Your task to perform on an android device: check out phone information Image 0: 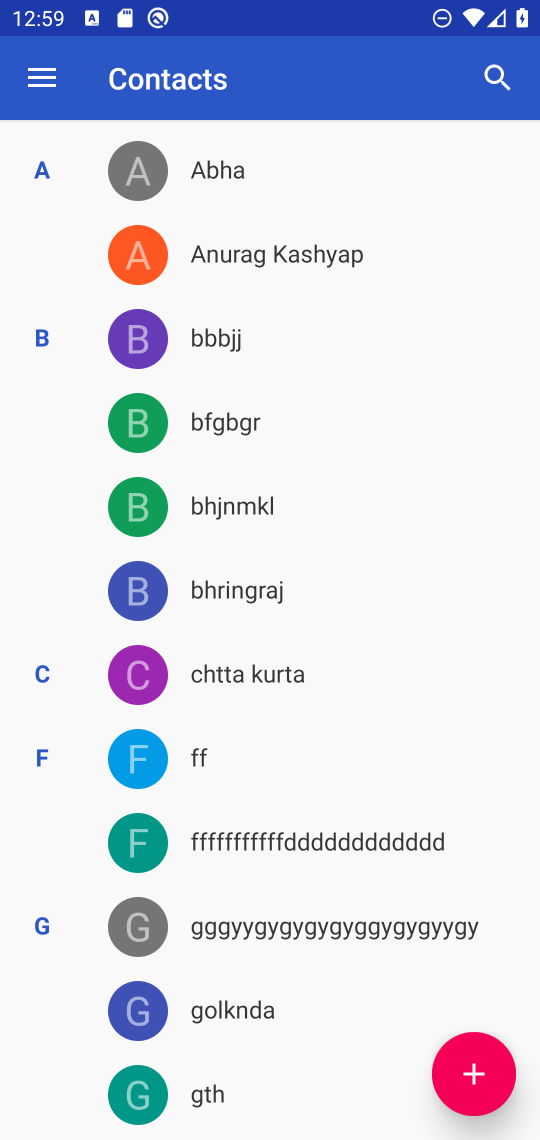
Step 0: press home button
Your task to perform on an android device: check out phone information Image 1: 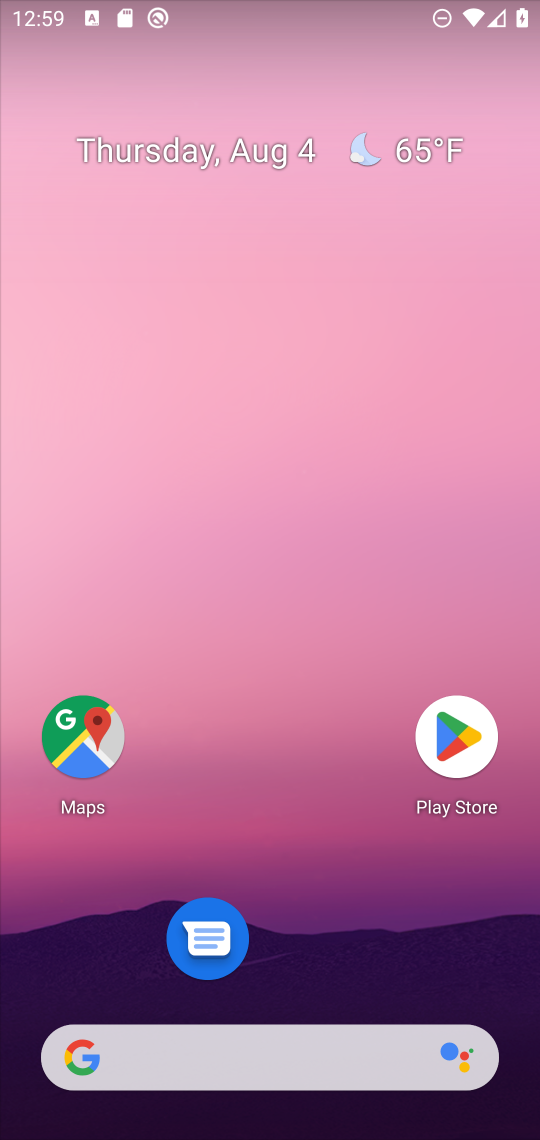
Step 1: drag from (309, 1109) to (363, 149)
Your task to perform on an android device: check out phone information Image 2: 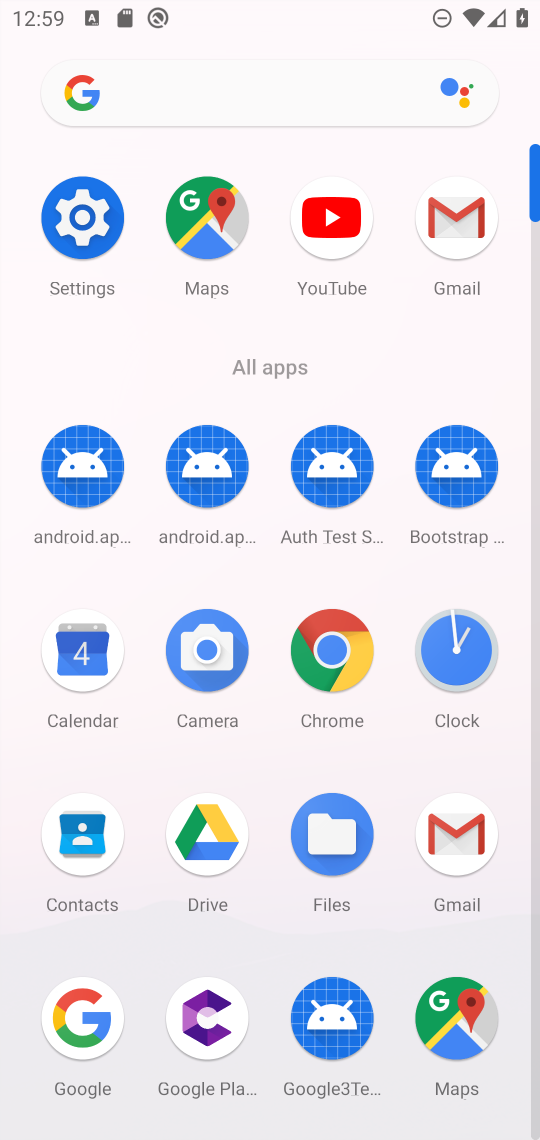
Step 2: click (110, 228)
Your task to perform on an android device: check out phone information Image 3: 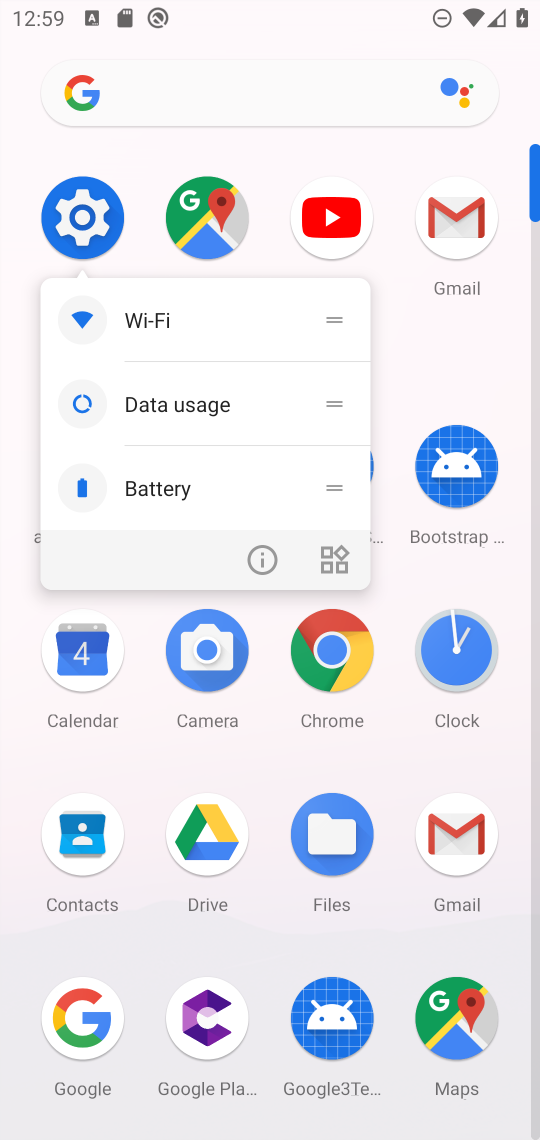
Step 3: click (110, 228)
Your task to perform on an android device: check out phone information Image 4: 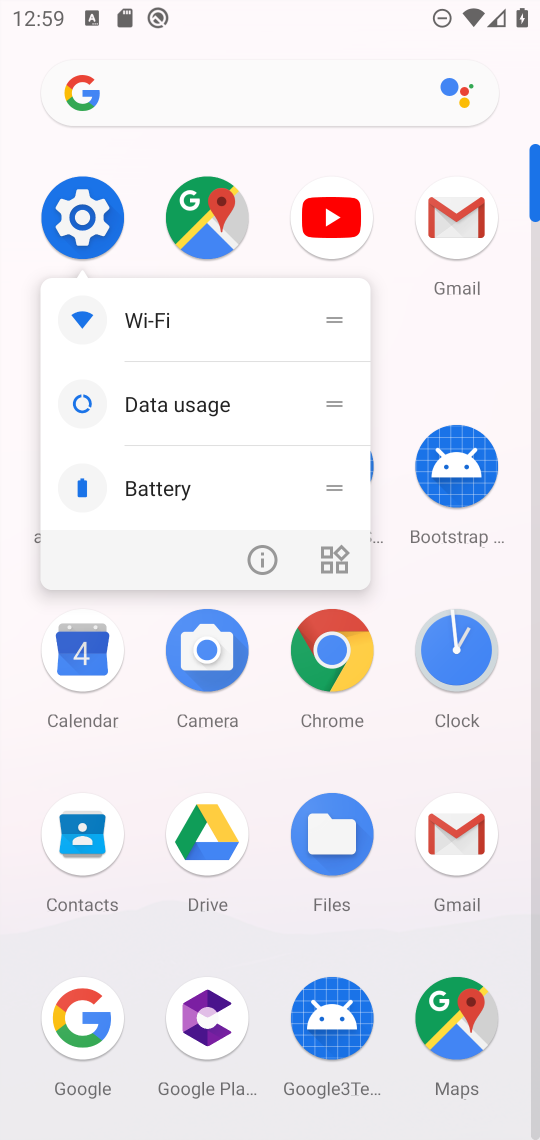
Step 4: click (88, 200)
Your task to perform on an android device: check out phone information Image 5: 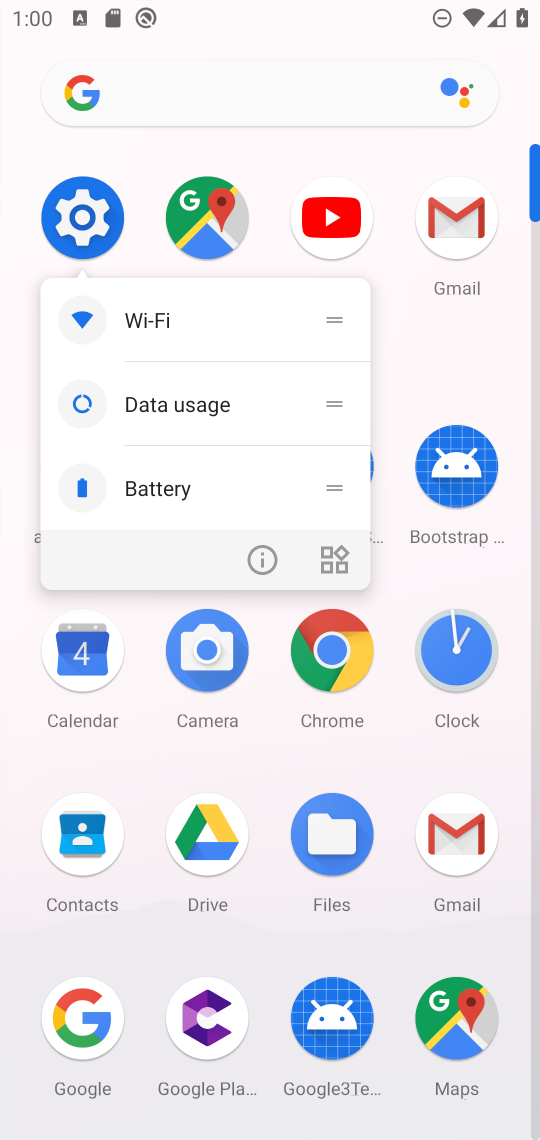
Step 5: click (96, 224)
Your task to perform on an android device: check out phone information Image 6: 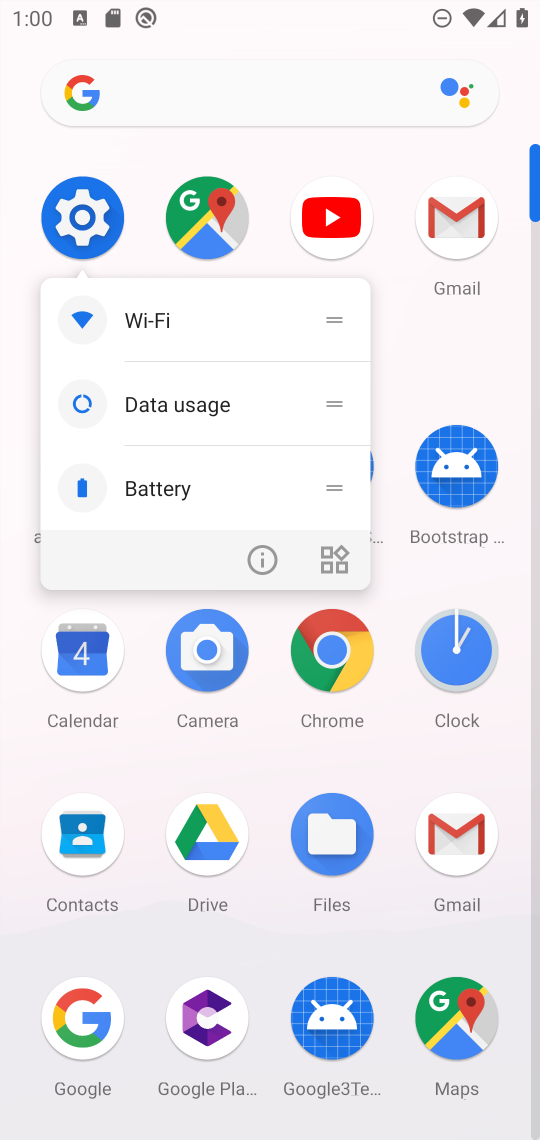
Step 6: click (96, 224)
Your task to perform on an android device: check out phone information Image 7: 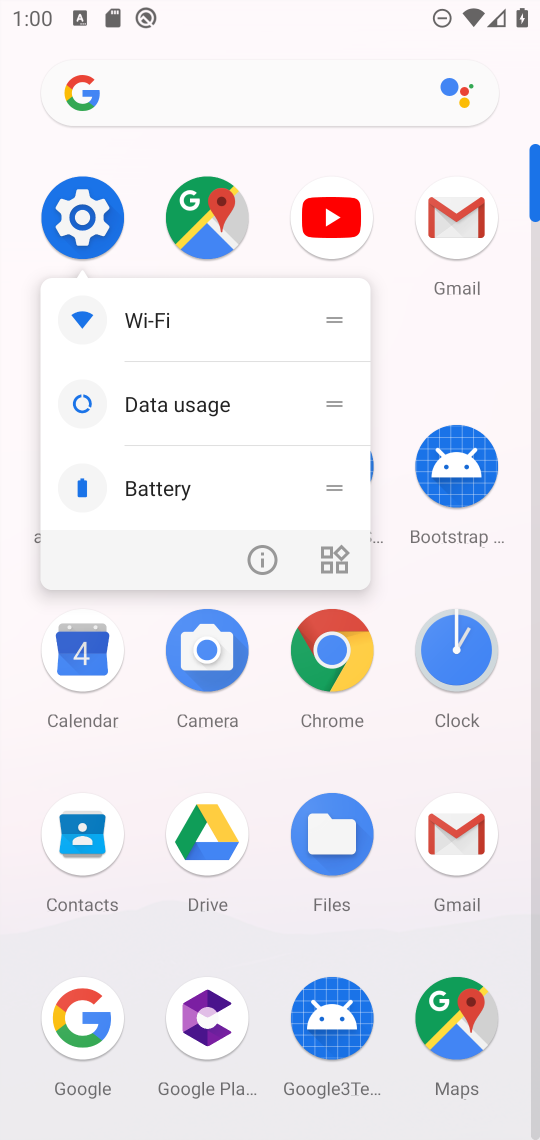
Step 7: click (96, 224)
Your task to perform on an android device: check out phone information Image 8: 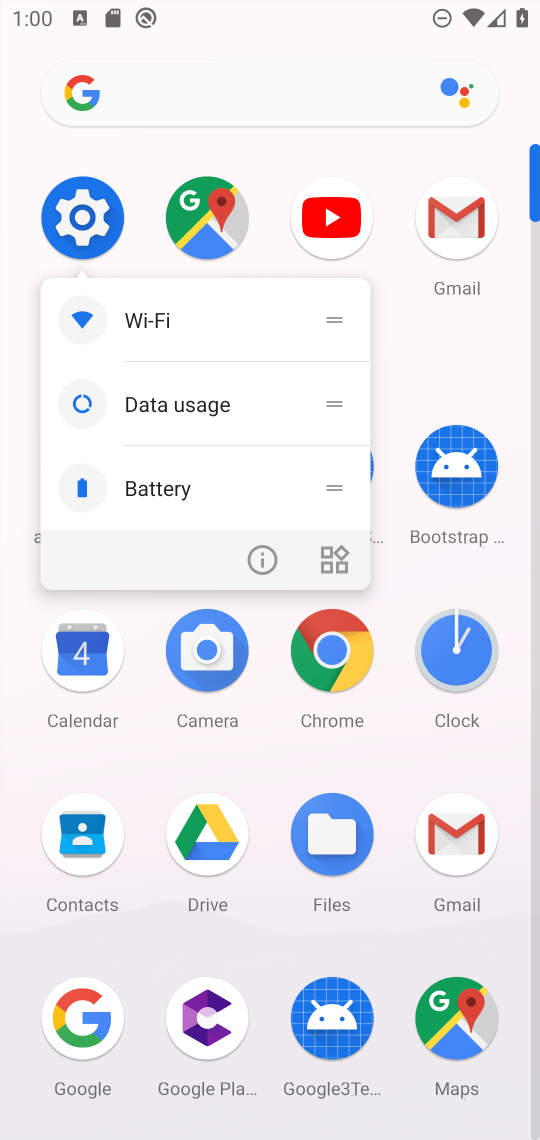
Step 8: click (96, 224)
Your task to perform on an android device: check out phone information Image 9: 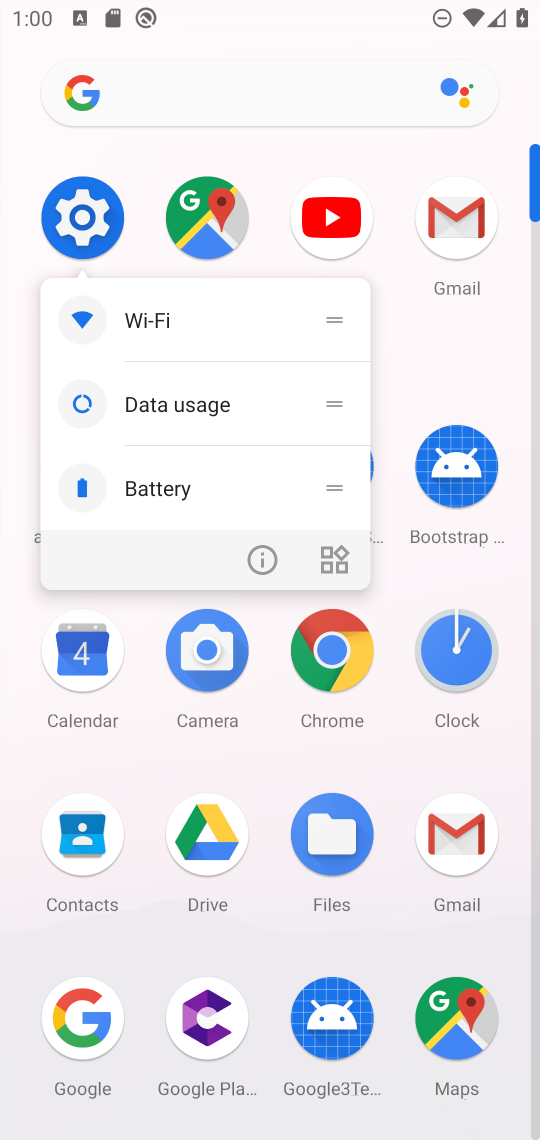
Step 9: click (70, 236)
Your task to perform on an android device: check out phone information Image 10: 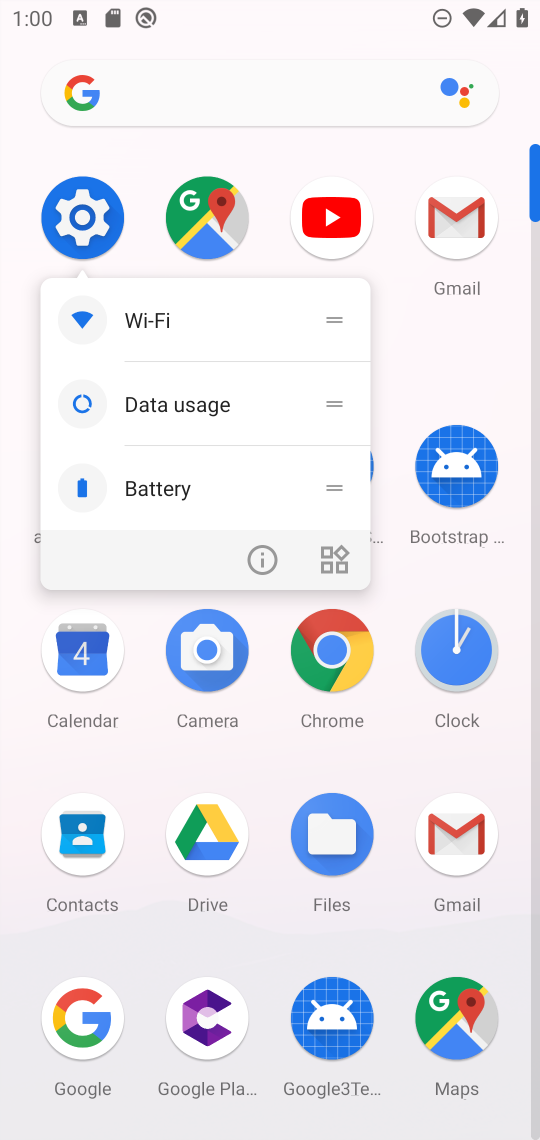
Step 10: click (86, 204)
Your task to perform on an android device: check out phone information Image 11: 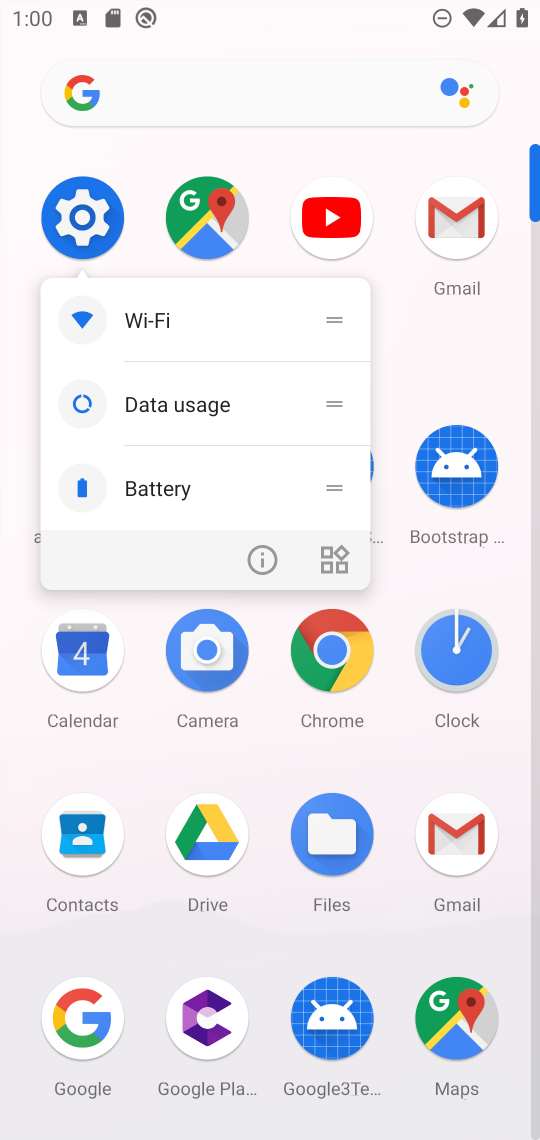
Step 11: click (84, 224)
Your task to perform on an android device: check out phone information Image 12: 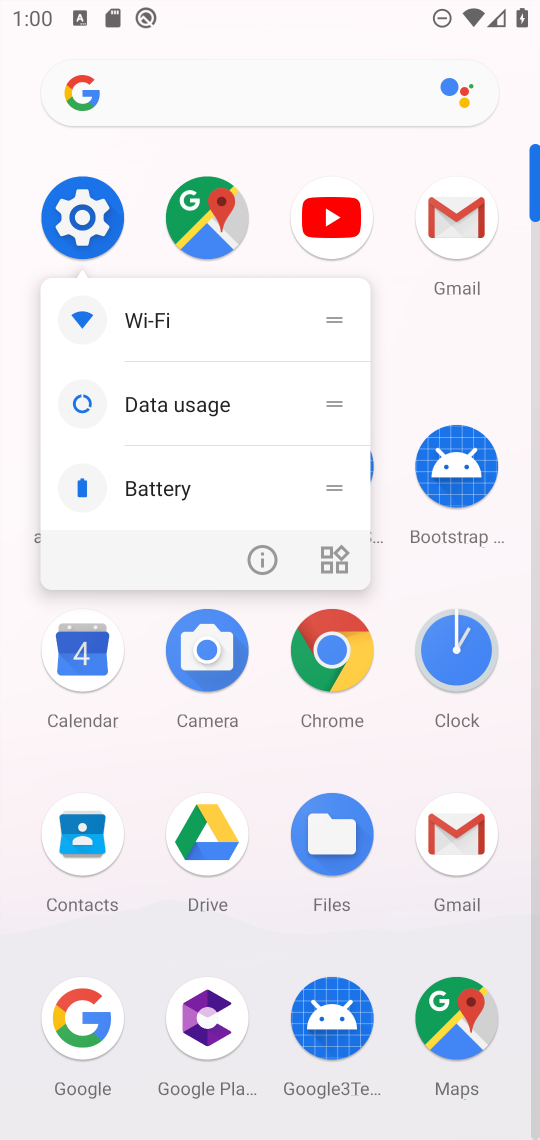
Step 12: click (84, 224)
Your task to perform on an android device: check out phone information Image 13: 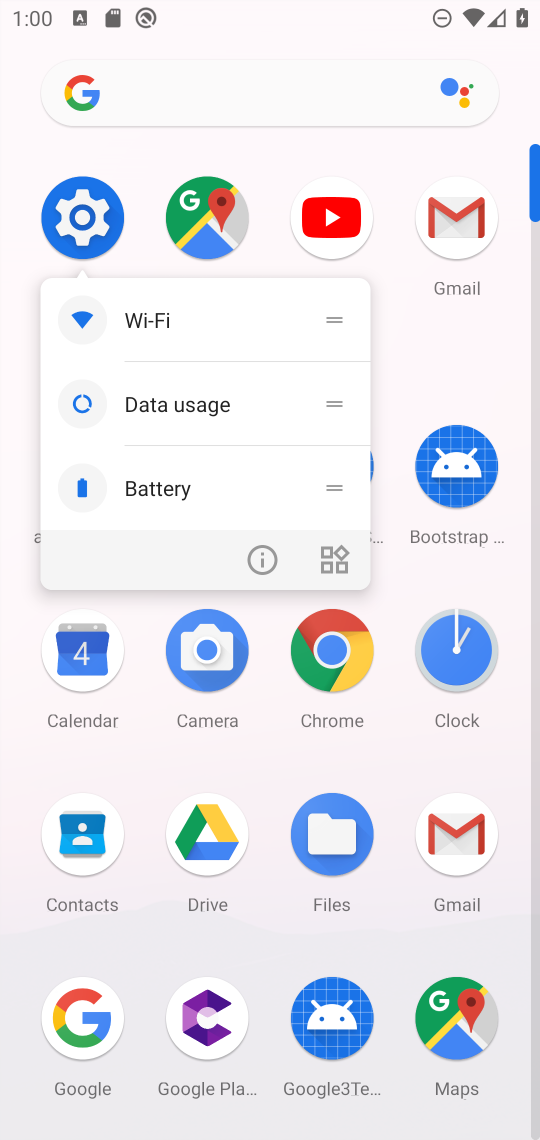
Step 13: click (88, 232)
Your task to perform on an android device: check out phone information Image 14: 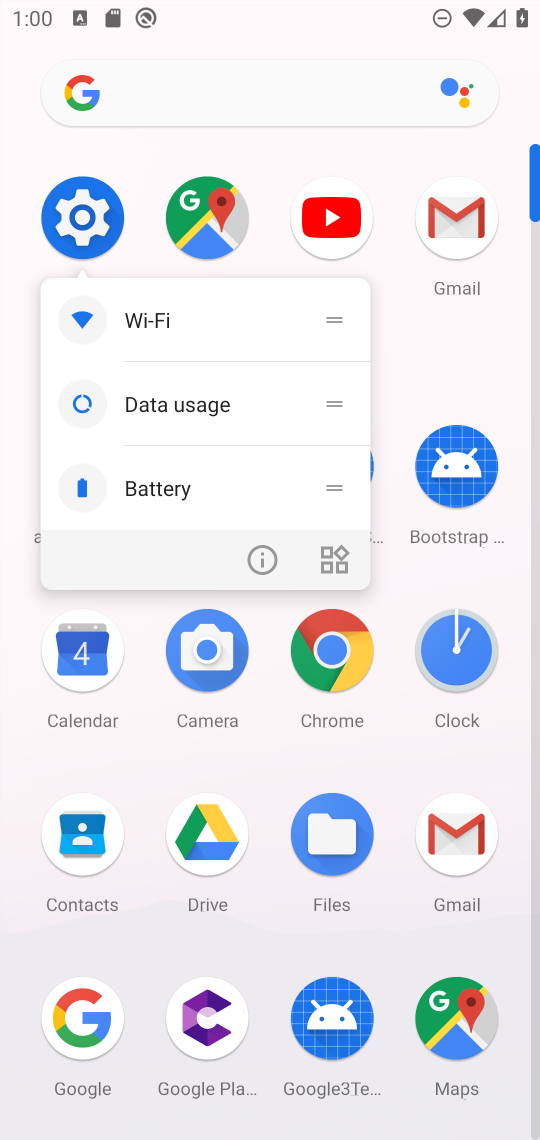
Step 14: click (88, 232)
Your task to perform on an android device: check out phone information Image 15: 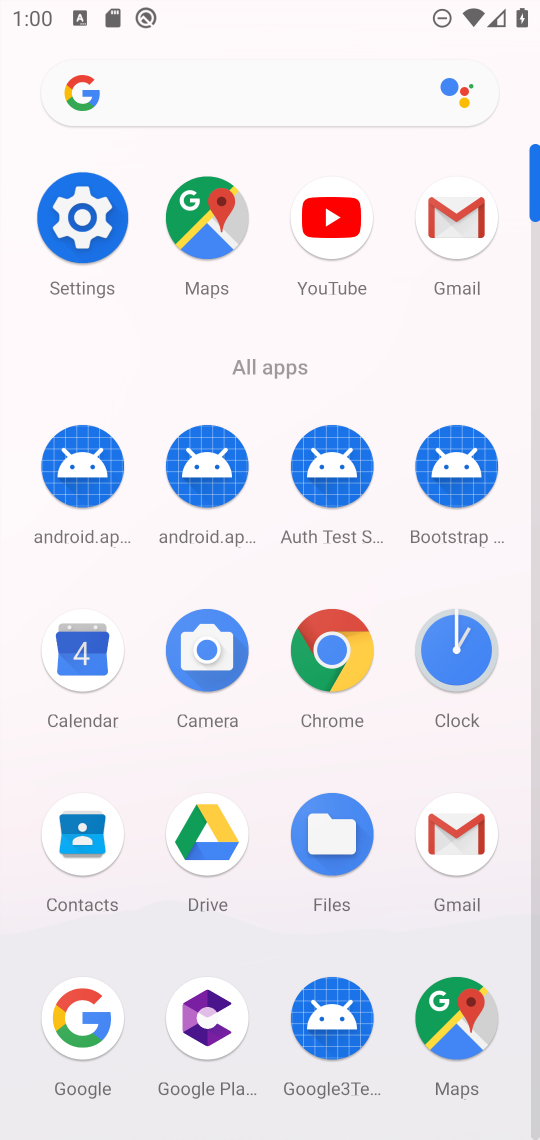
Step 15: click (65, 237)
Your task to perform on an android device: check out phone information Image 16: 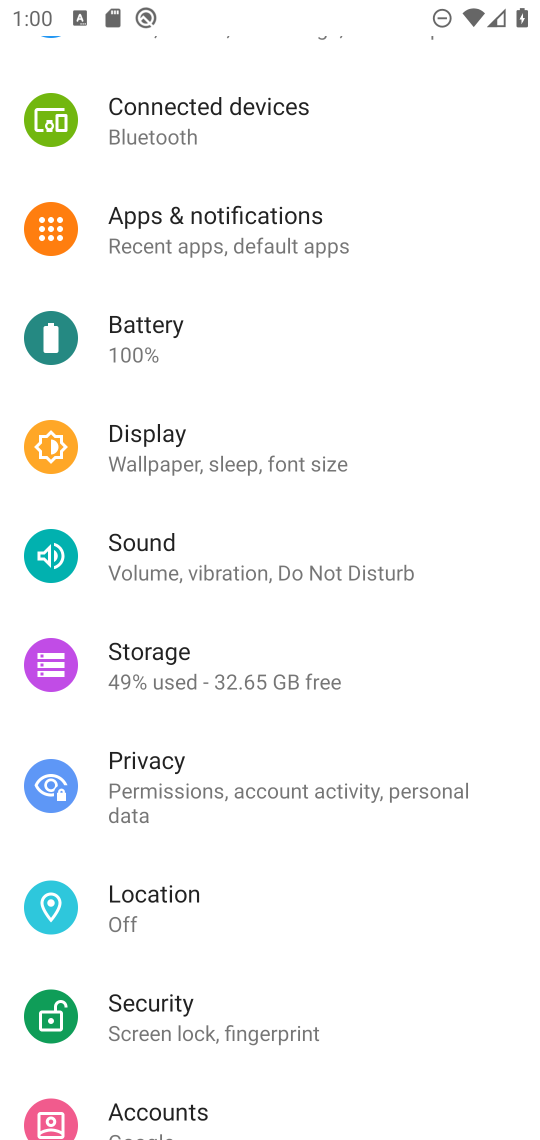
Step 16: drag from (326, 1016) to (513, 387)
Your task to perform on an android device: check out phone information Image 17: 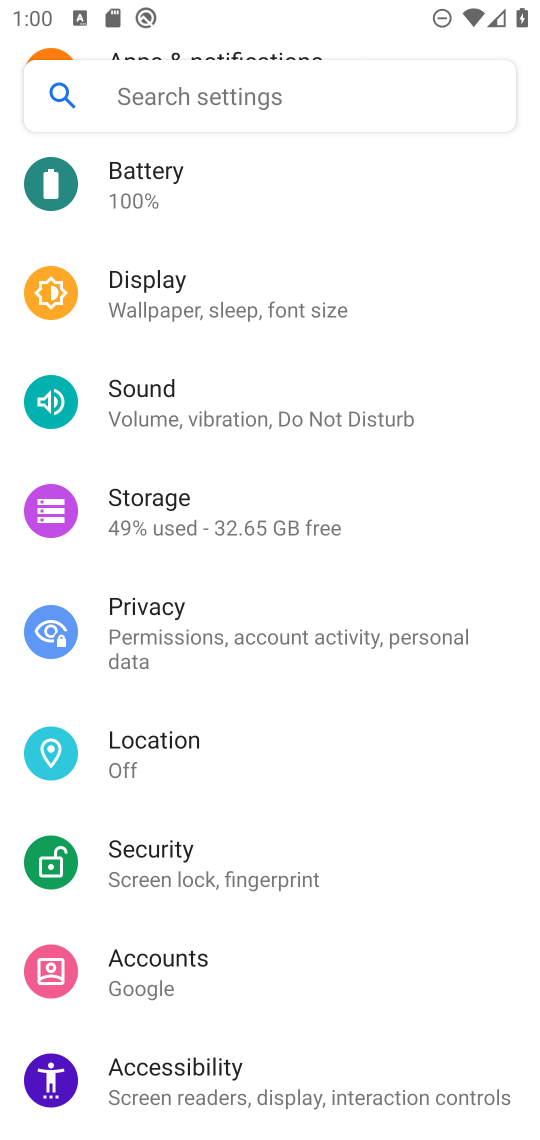
Step 17: drag from (395, 968) to (521, 546)
Your task to perform on an android device: check out phone information Image 18: 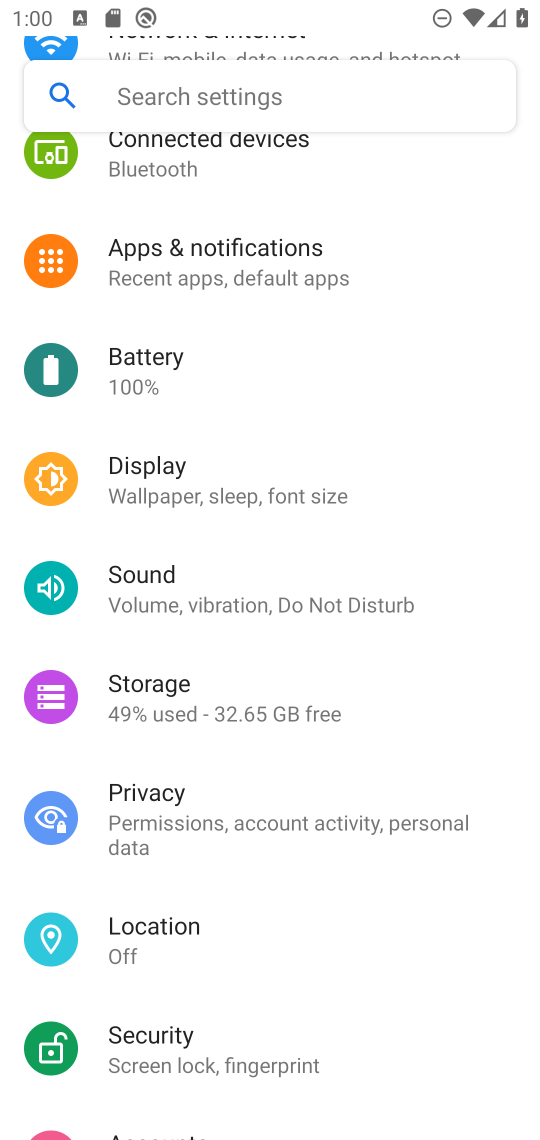
Step 18: drag from (319, 816) to (352, 0)
Your task to perform on an android device: check out phone information Image 19: 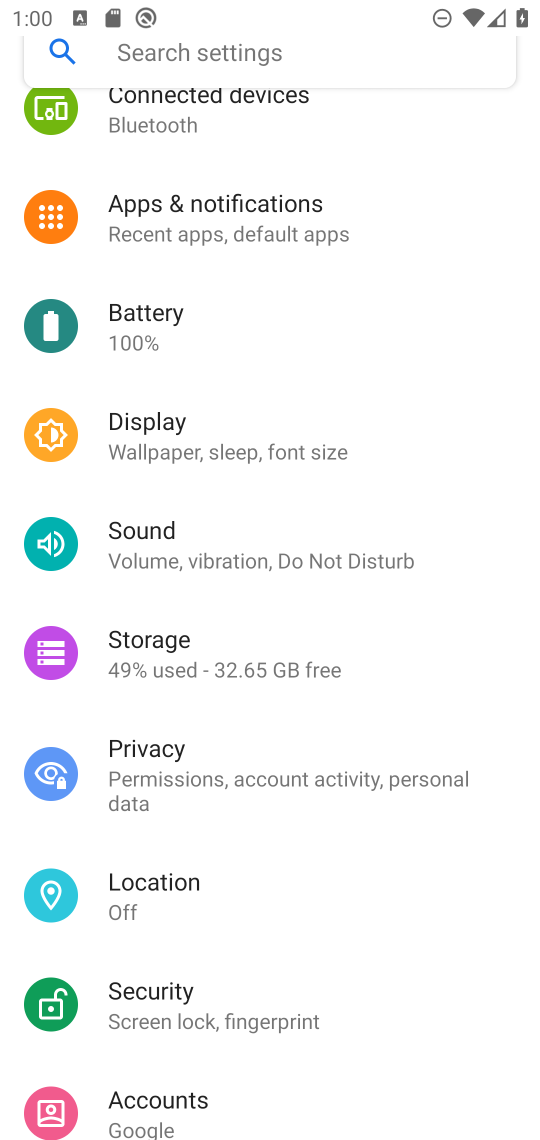
Step 19: drag from (307, 1012) to (507, 54)
Your task to perform on an android device: check out phone information Image 20: 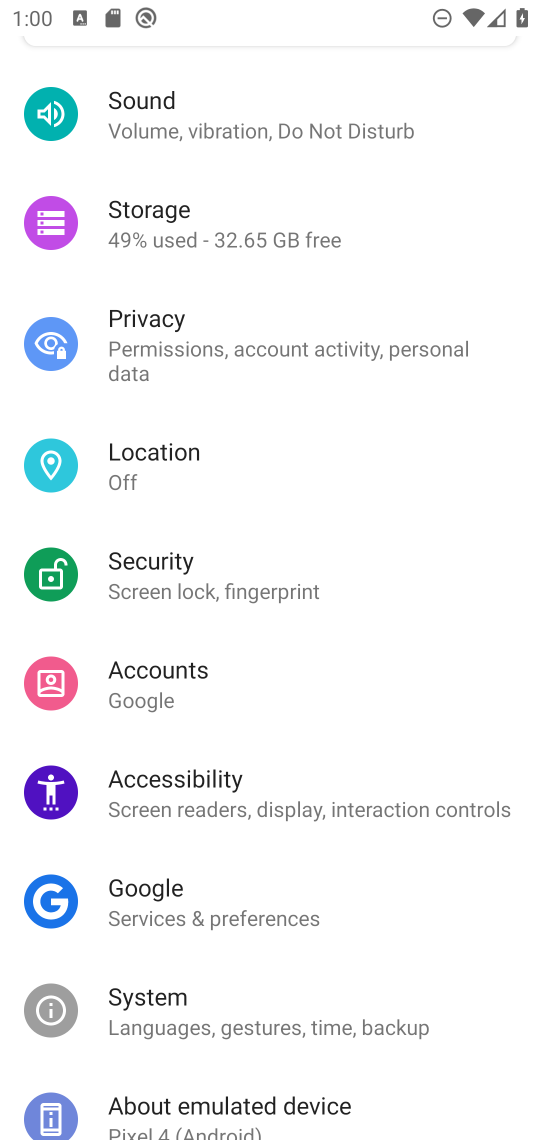
Step 20: click (424, 1105)
Your task to perform on an android device: check out phone information Image 21: 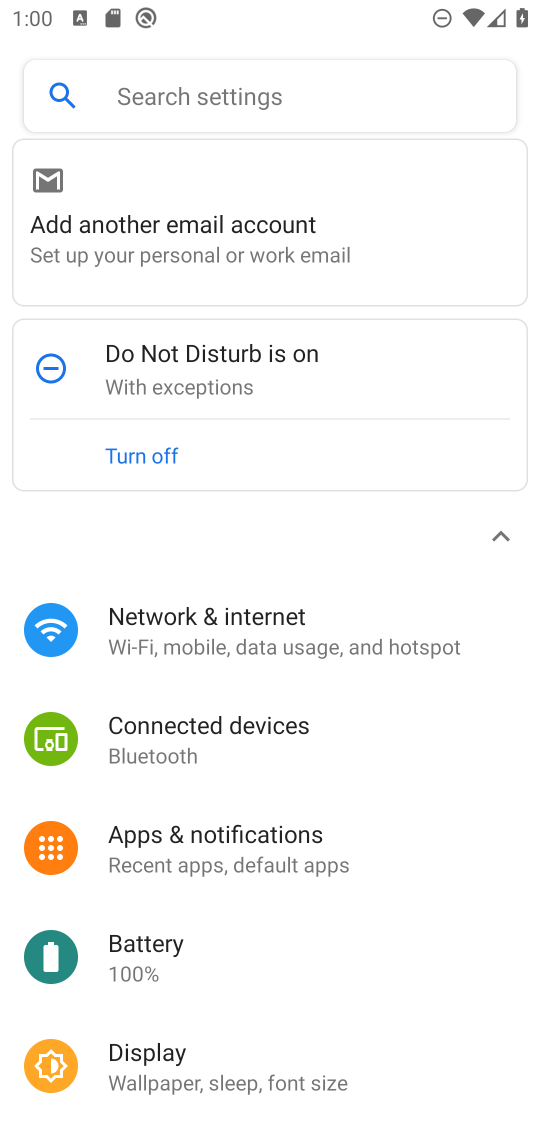
Step 21: drag from (382, 1031) to (309, 159)
Your task to perform on an android device: check out phone information Image 22: 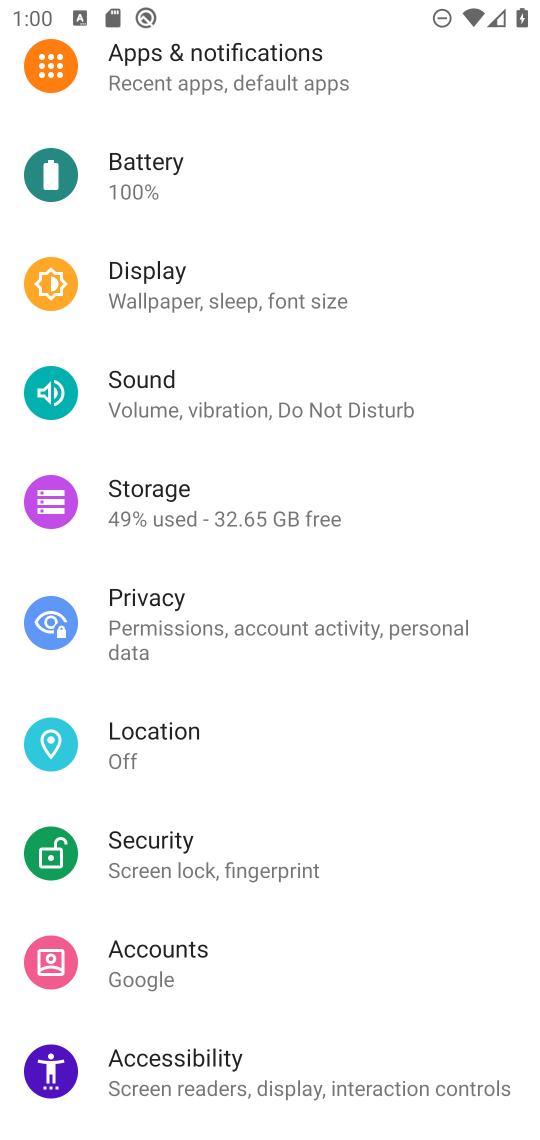
Step 22: drag from (375, 927) to (280, 52)
Your task to perform on an android device: check out phone information Image 23: 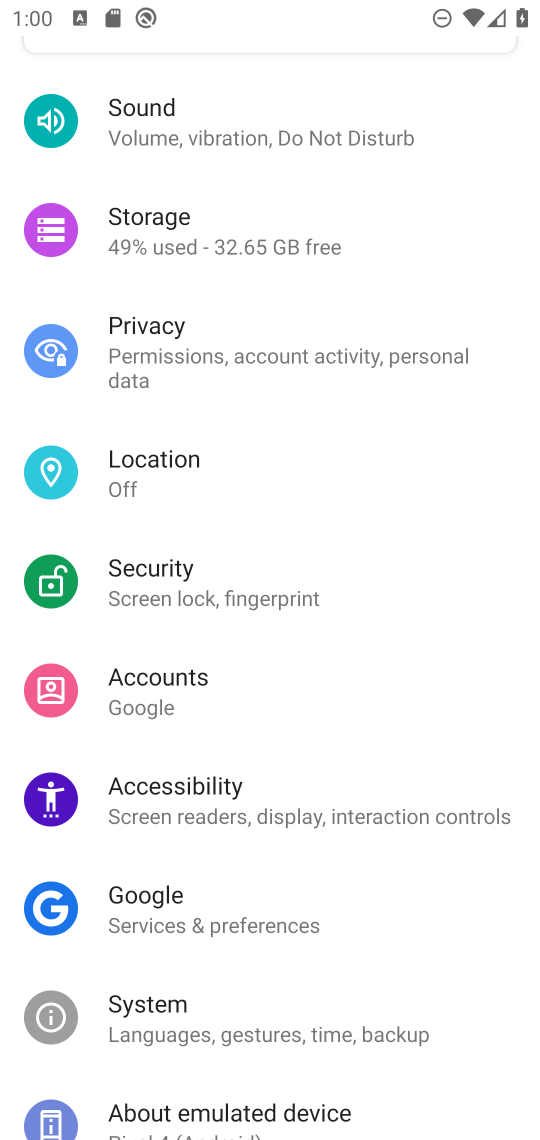
Step 23: drag from (469, 1055) to (520, 5)
Your task to perform on an android device: check out phone information Image 24: 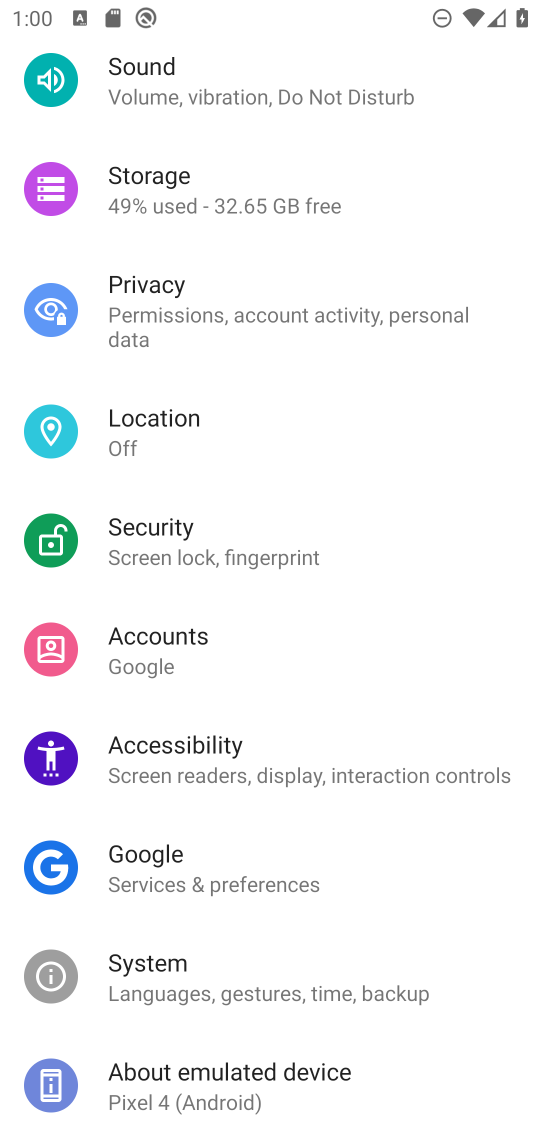
Step 24: drag from (427, 994) to (521, 902)
Your task to perform on an android device: check out phone information Image 25: 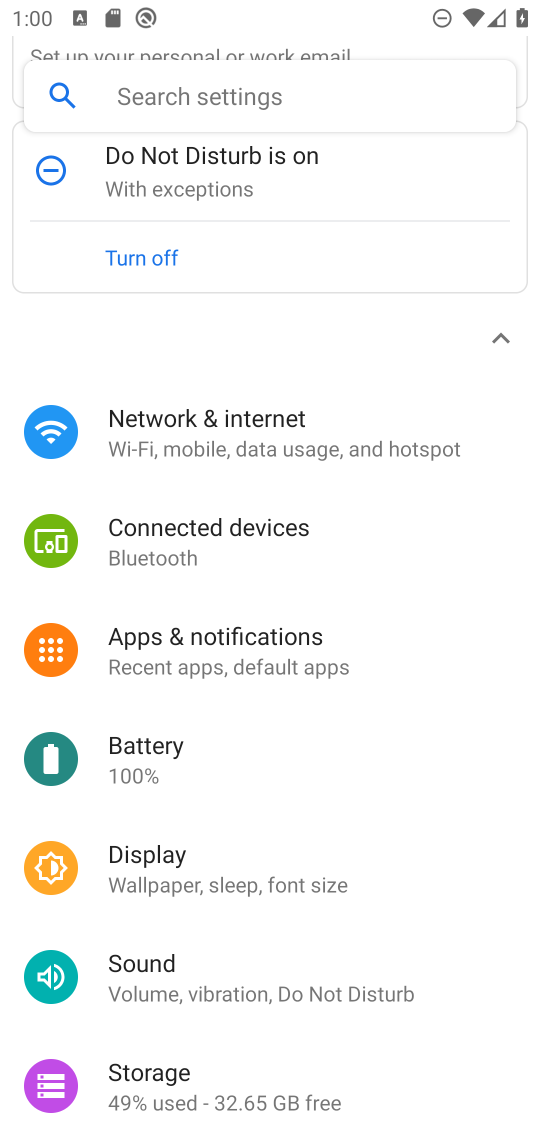
Step 25: drag from (429, 1060) to (423, 47)
Your task to perform on an android device: check out phone information Image 26: 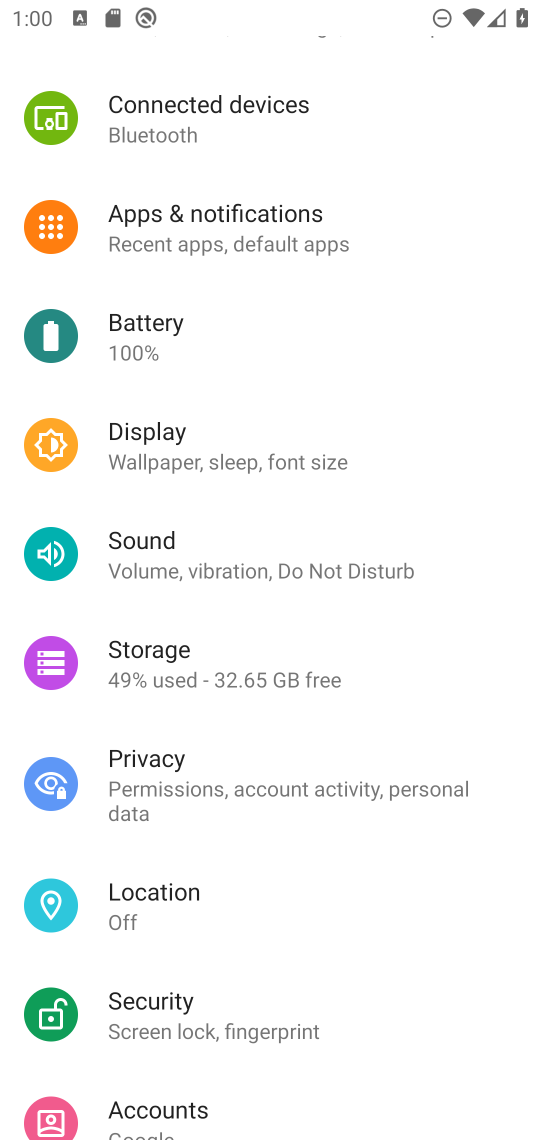
Step 26: drag from (279, 1011) to (385, 25)
Your task to perform on an android device: check out phone information Image 27: 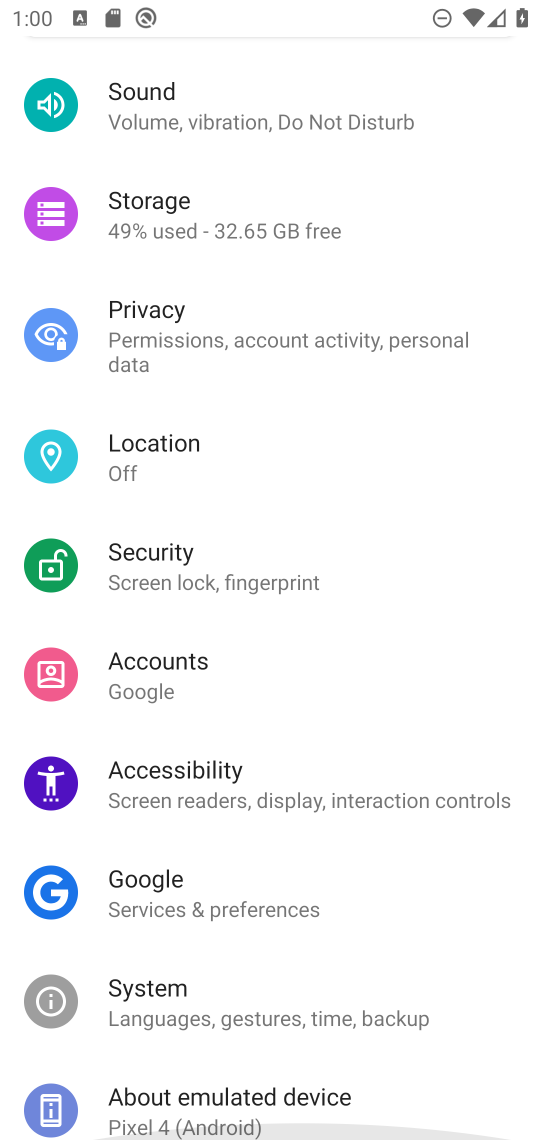
Step 27: drag from (309, 1095) to (404, 361)
Your task to perform on an android device: check out phone information Image 28: 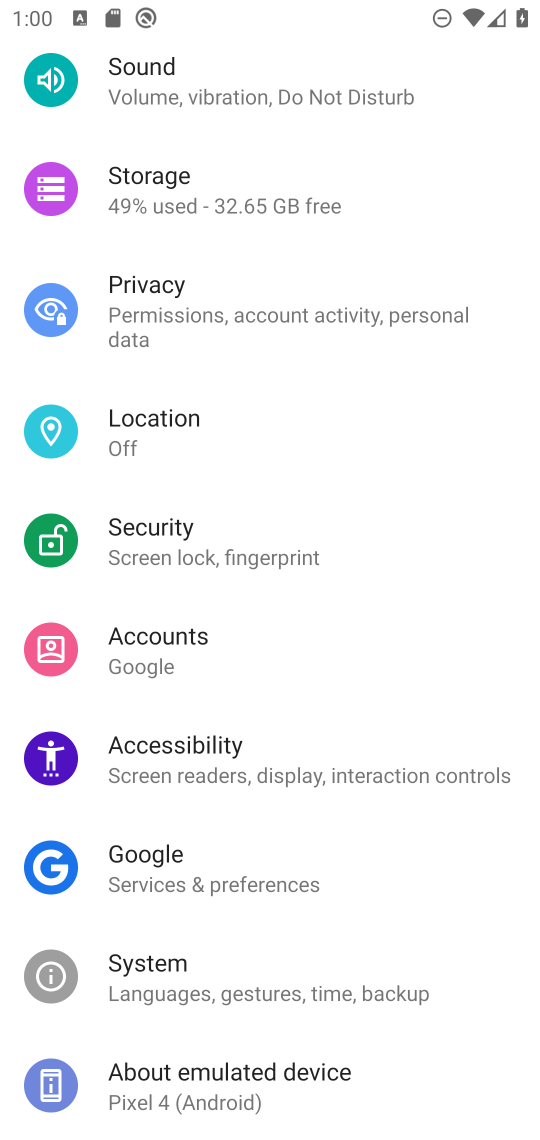
Step 28: click (219, 1099)
Your task to perform on an android device: check out phone information Image 29: 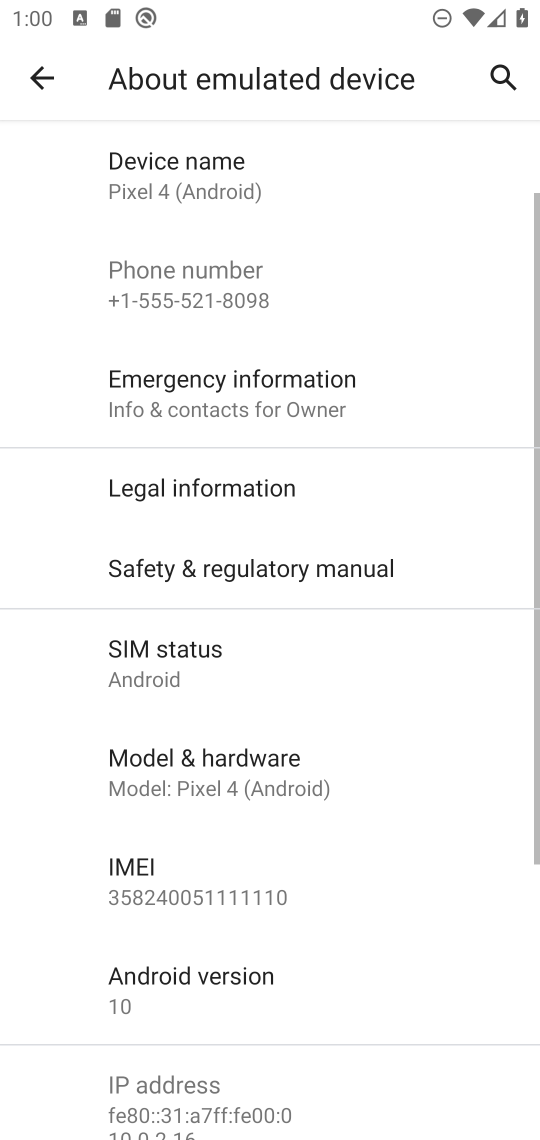
Step 29: task complete